Your task to perform on an android device: Go to settings Image 0: 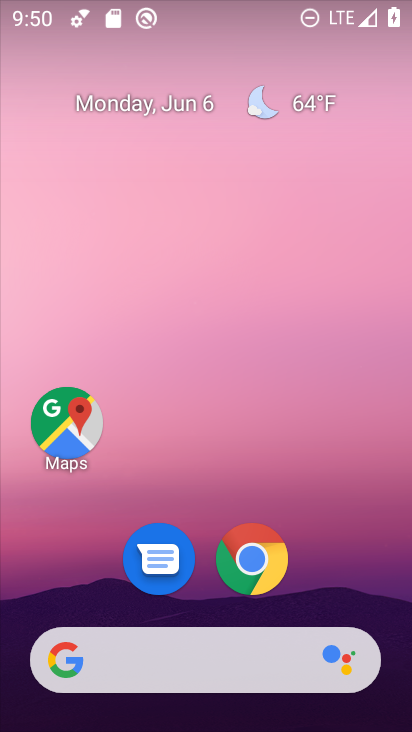
Step 0: drag from (246, 728) to (243, 134)
Your task to perform on an android device: Go to settings Image 1: 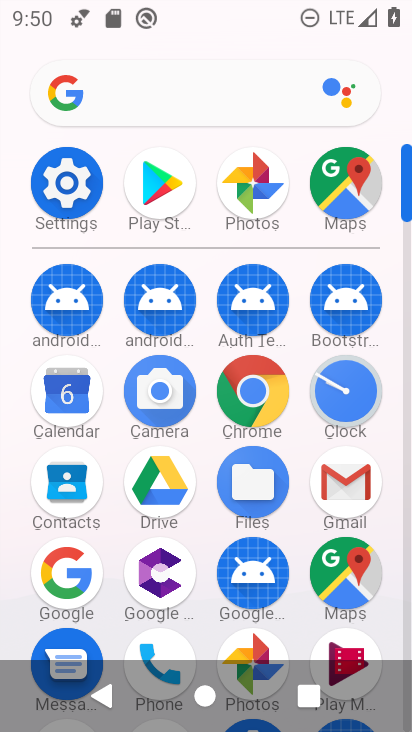
Step 1: click (68, 193)
Your task to perform on an android device: Go to settings Image 2: 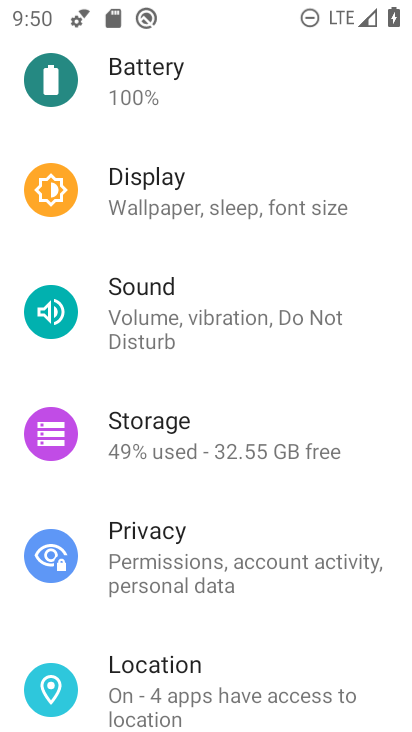
Step 2: task complete